Your task to perform on an android device: change notification settings in the gmail app Image 0: 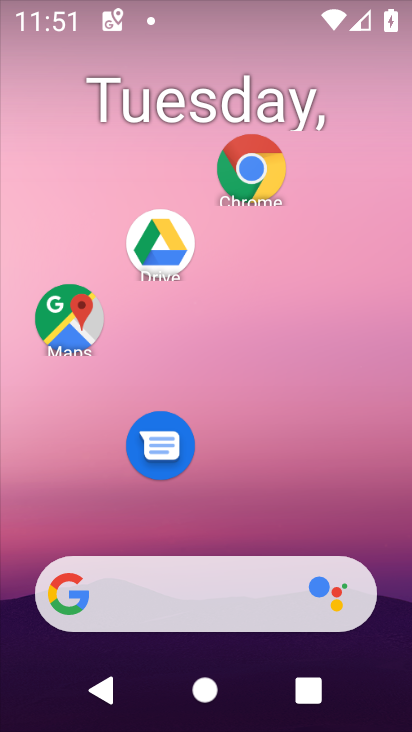
Step 0: drag from (224, 468) to (224, 5)
Your task to perform on an android device: change notification settings in the gmail app Image 1: 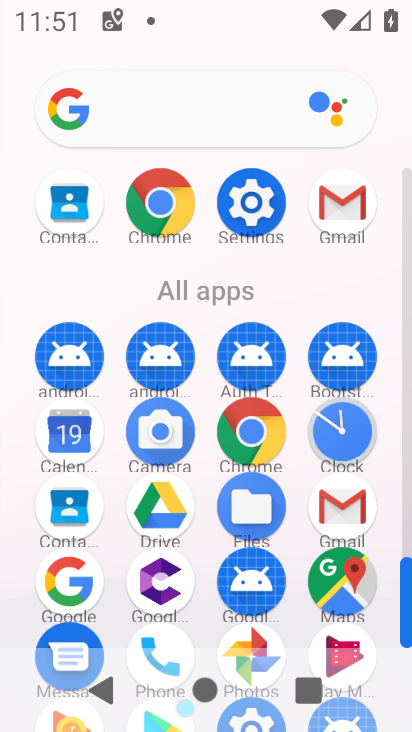
Step 1: click (359, 217)
Your task to perform on an android device: change notification settings in the gmail app Image 2: 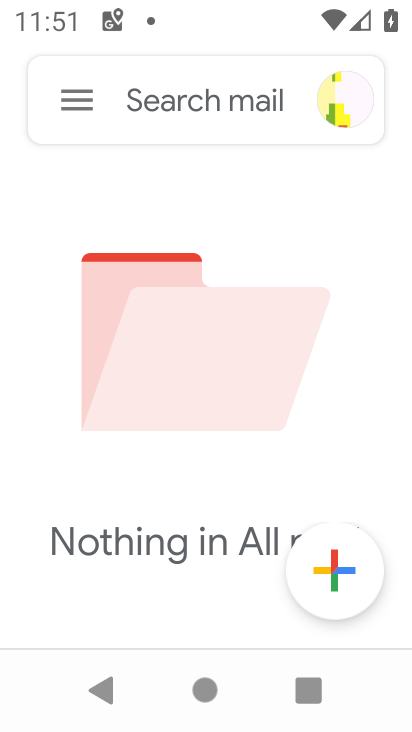
Step 2: click (84, 100)
Your task to perform on an android device: change notification settings in the gmail app Image 3: 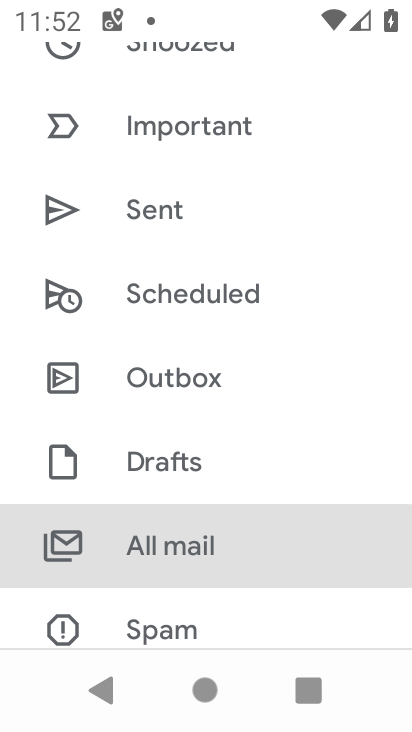
Step 3: drag from (252, 489) to (257, 211)
Your task to perform on an android device: change notification settings in the gmail app Image 4: 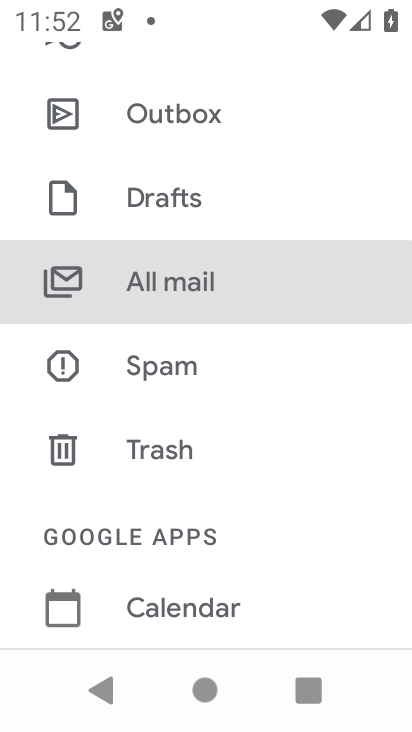
Step 4: drag from (226, 463) to (230, 207)
Your task to perform on an android device: change notification settings in the gmail app Image 5: 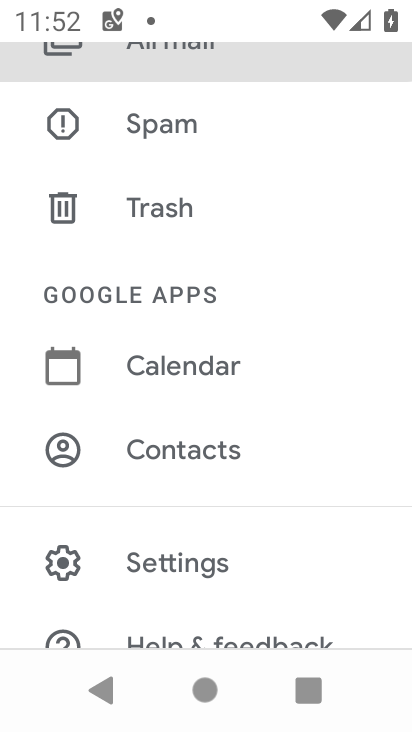
Step 5: click (204, 559)
Your task to perform on an android device: change notification settings in the gmail app Image 6: 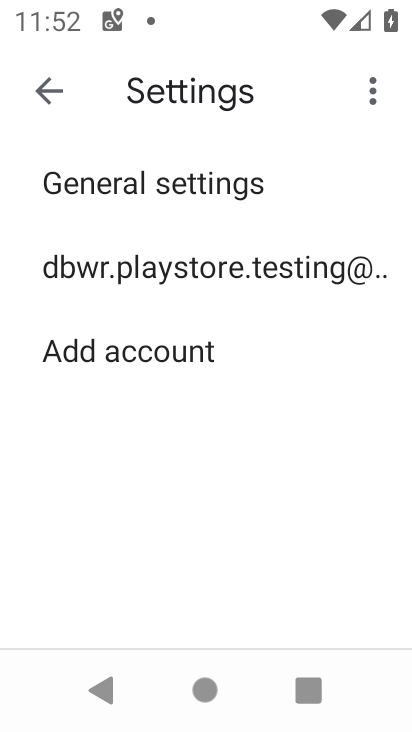
Step 6: click (214, 265)
Your task to perform on an android device: change notification settings in the gmail app Image 7: 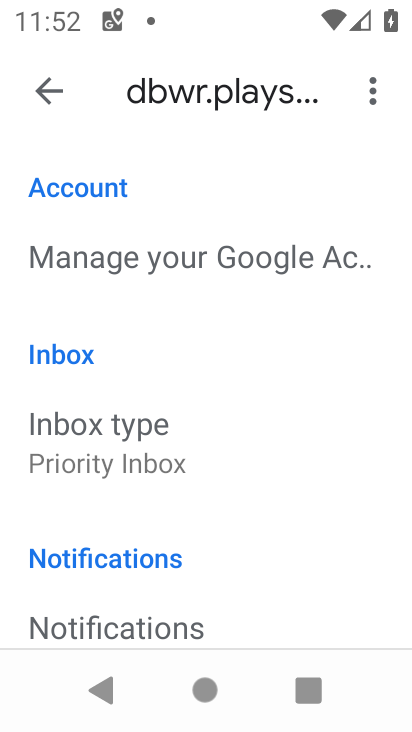
Step 7: drag from (273, 567) to (273, 296)
Your task to perform on an android device: change notification settings in the gmail app Image 8: 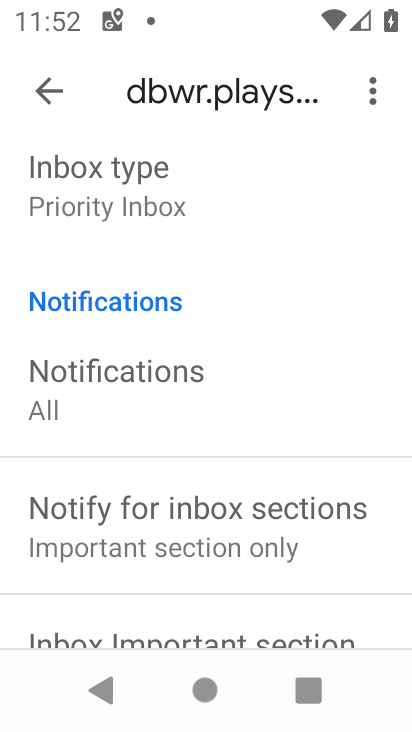
Step 8: drag from (235, 514) to (245, 312)
Your task to perform on an android device: change notification settings in the gmail app Image 9: 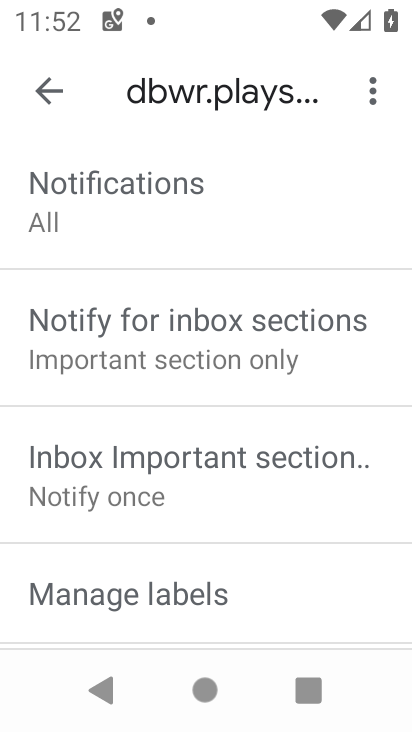
Step 9: drag from (236, 489) to (230, 266)
Your task to perform on an android device: change notification settings in the gmail app Image 10: 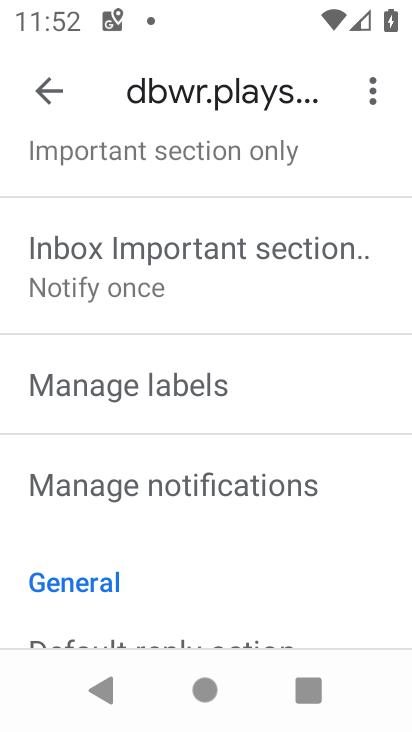
Step 10: click (229, 471)
Your task to perform on an android device: change notification settings in the gmail app Image 11: 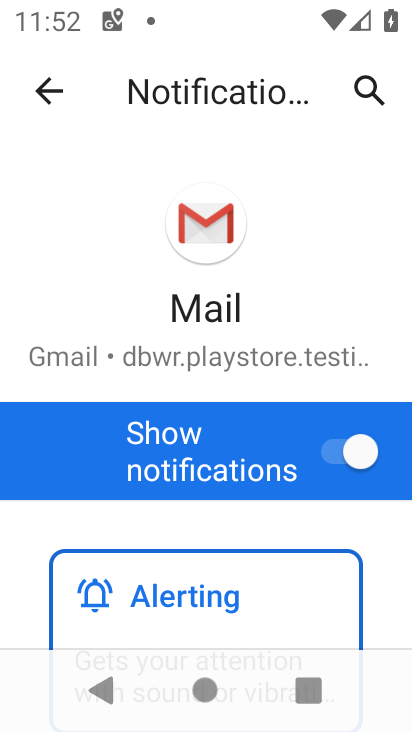
Step 11: click (325, 454)
Your task to perform on an android device: change notification settings in the gmail app Image 12: 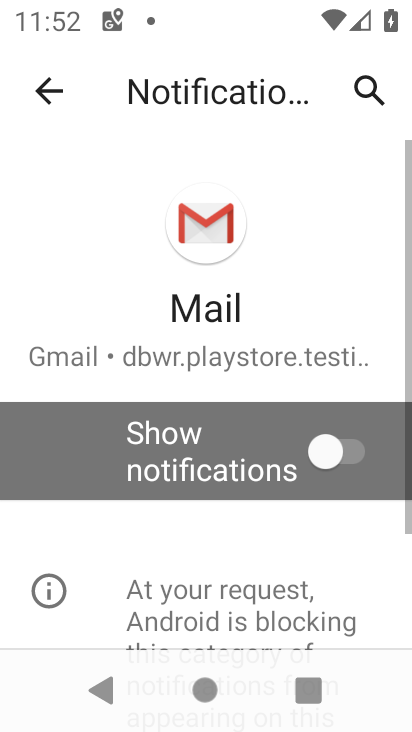
Step 12: task complete